Your task to perform on an android device: set default search engine in the chrome app Image 0: 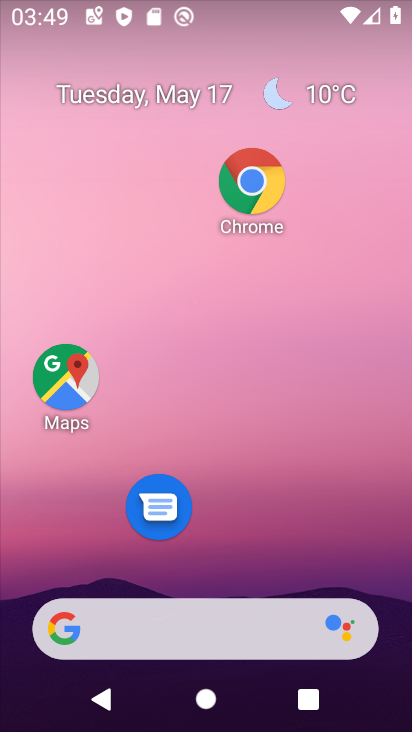
Step 0: click (257, 175)
Your task to perform on an android device: set default search engine in the chrome app Image 1: 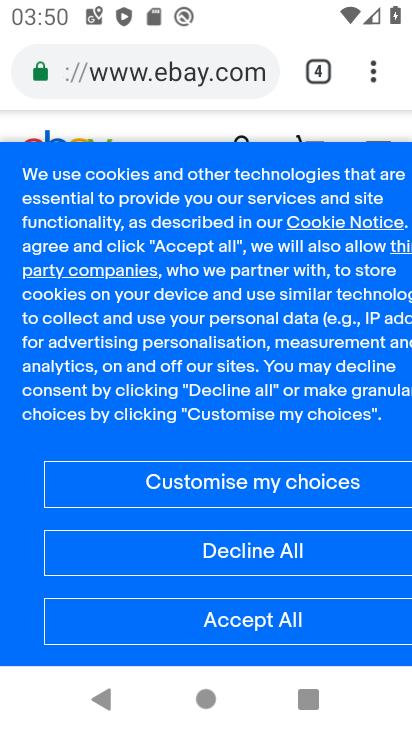
Step 1: click (386, 66)
Your task to perform on an android device: set default search engine in the chrome app Image 2: 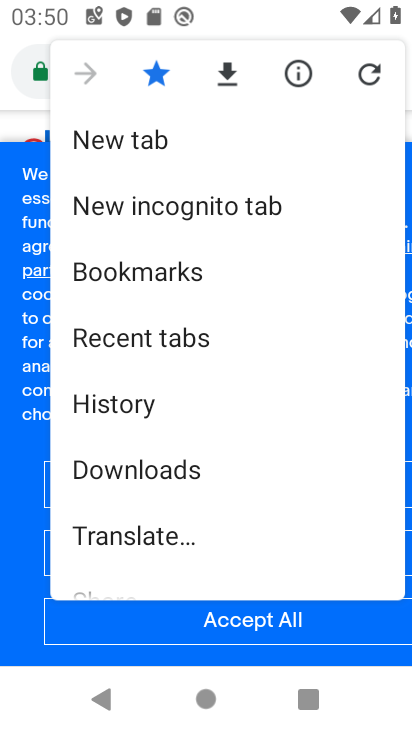
Step 2: drag from (126, 521) to (139, 246)
Your task to perform on an android device: set default search engine in the chrome app Image 3: 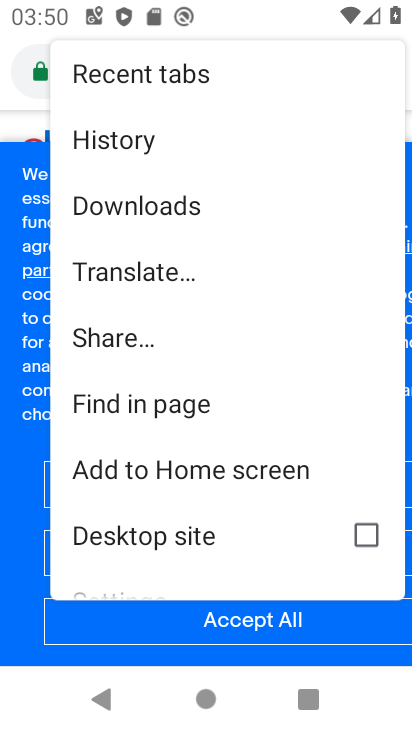
Step 3: drag from (141, 450) to (189, 36)
Your task to perform on an android device: set default search engine in the chrome app Image 4: 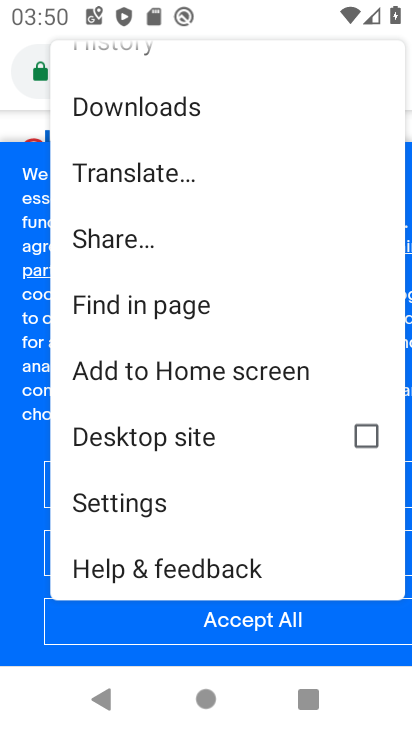
Step 4: click (135, 502)
Your task to perform on an android device: set default search engine in the chrome app Image 5: 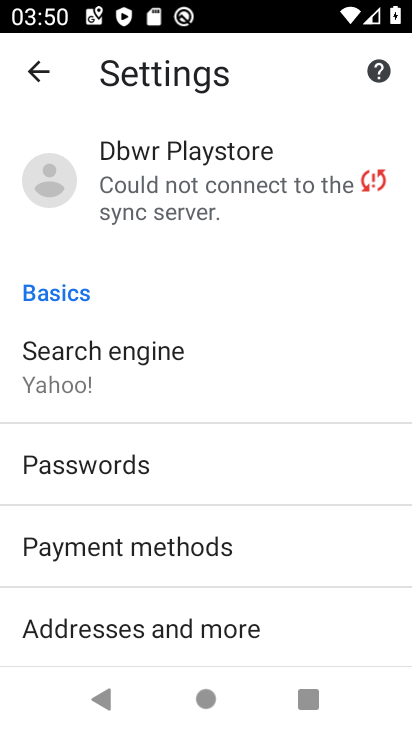
Step 5: click (150, 391)
Your task to perform on an android device: set default search engine in the chrome app Image 6: 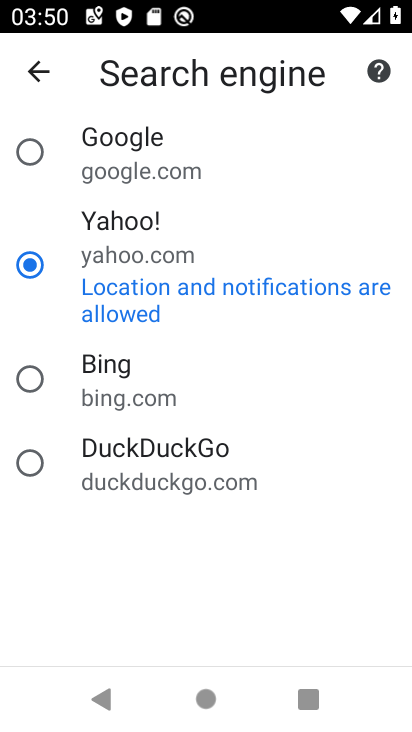
Step 6: click (137, 376)
Your task to perform on an android device: set default search engine in the chrome app Image 7: 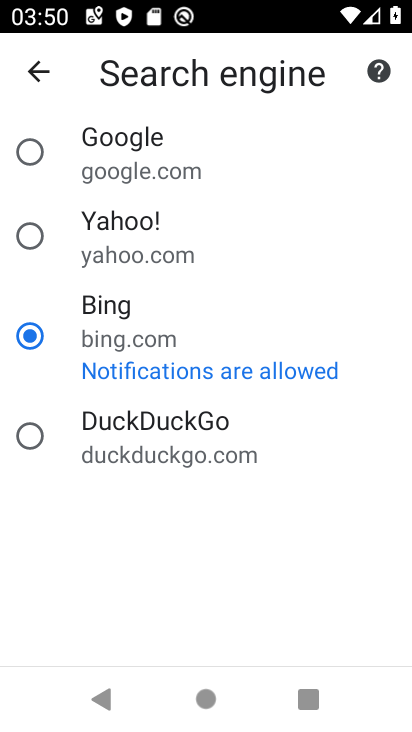
Step 7: task complete